Your task to perform on an android device: read, delete, or share a saved page in the chrome app Image 0: 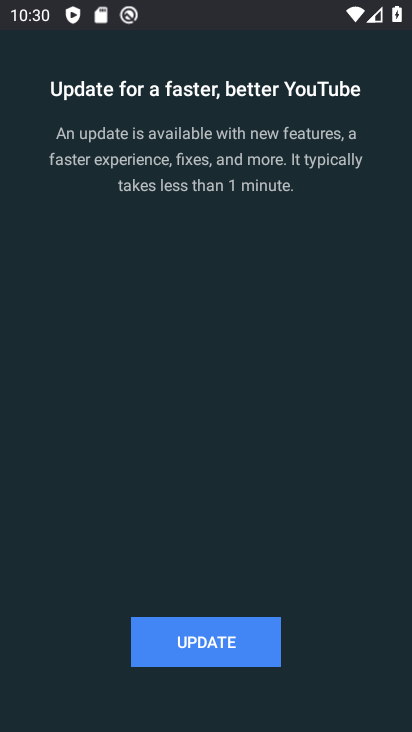
Step 0: press home button
Your task to perform on an android device: read, delete, or share a saved page in the chrome app Image 1: 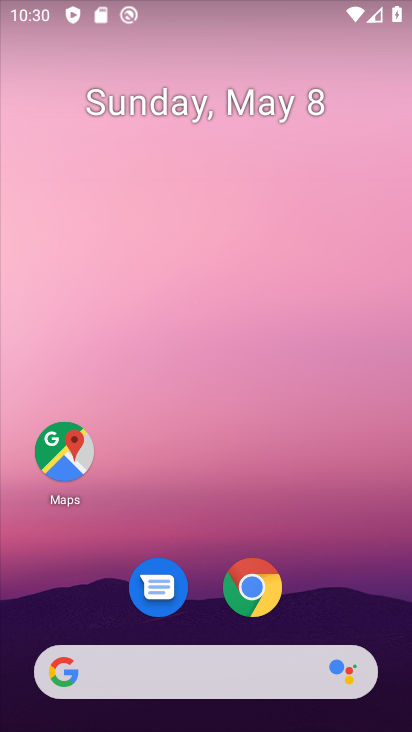
Step 1: drag from (339, 597) to (172, 52)
Your task to perform on an android device: read, delete, or share a saved page in the chrome app Image 2: 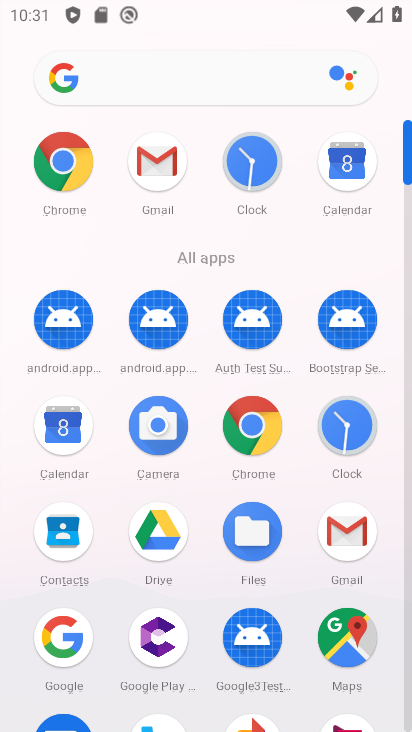
Step 2: click (57, 157)
Your task to perform on an android device: read, delete, or share a saved page in the chrome app Image 3: 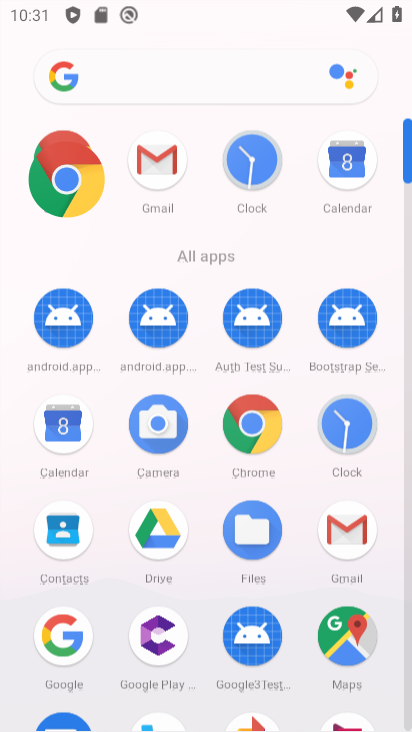
Step 3: click (57, 157)
Your task to perform on an android device: read, delete, or share a saved page in the chrome app Image 4: 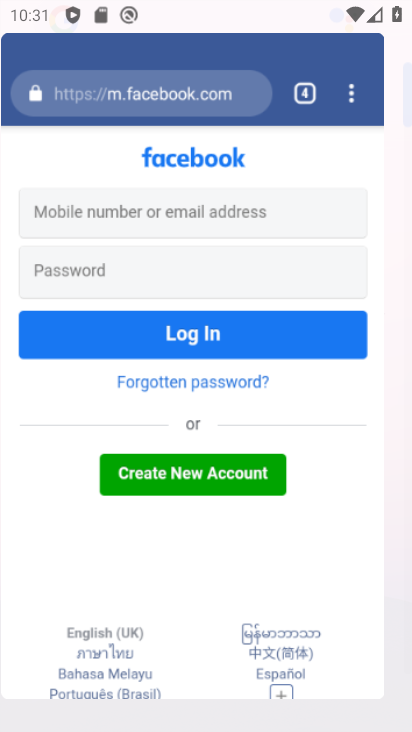
Step 4: click (57, 157)
Your task to perform on an android device: read, delete, or share a saved page in the chrome app Image 5: 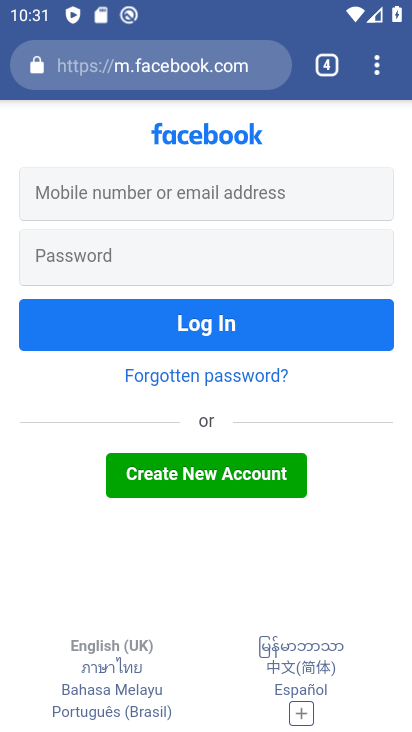
Step 5: press home button
Your task to perform on an android device: read, delete, or share a saved page in the chrome app Image 6: 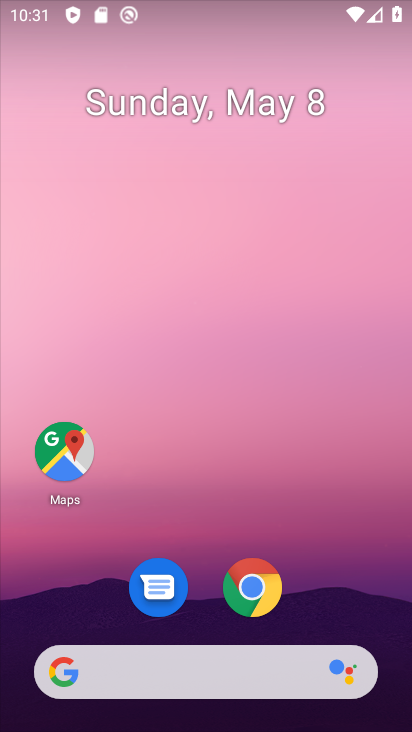
Step 6: drag from (357, 591) to (208, 118)
Your task to perform on an android device: read, delete, or share a saved page in the chrome app Image 7: 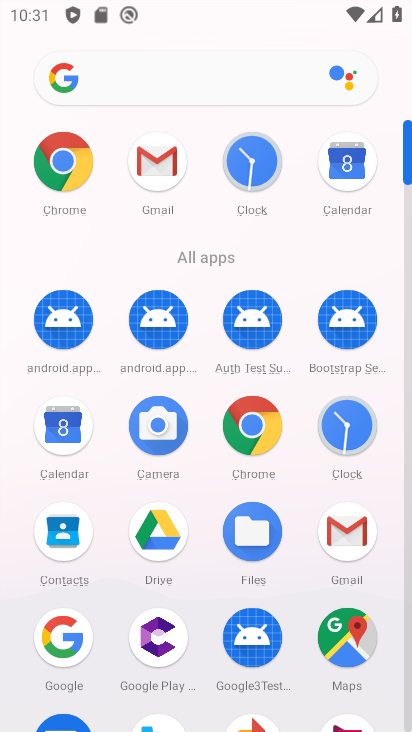
Step 7: click (259, 427)
Your task to perform on an android device: read, delete, or share a saved page in the chrome app Image 8: 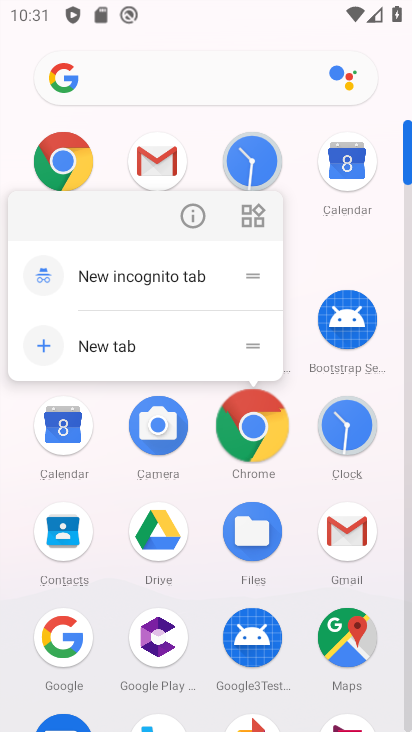
Step 8: click (264, 420)
Your task to perform on an android device: read, delete, or share a saved page in the chrome app Image 9: 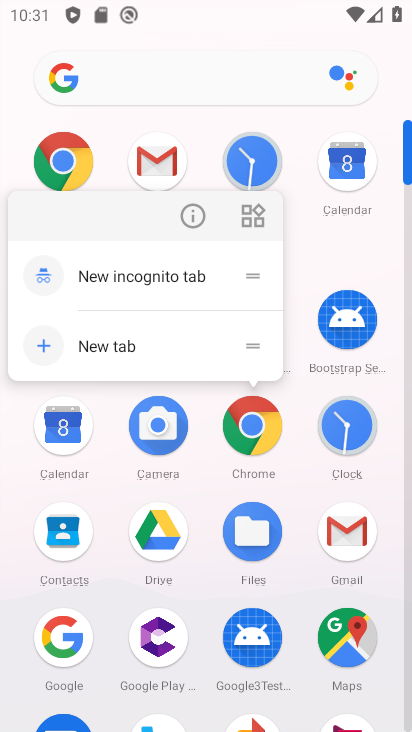
Step 9: click (264, 420)
Your task to perform on an android device: read, delete, or share a saved page in the chrome app Image 10: 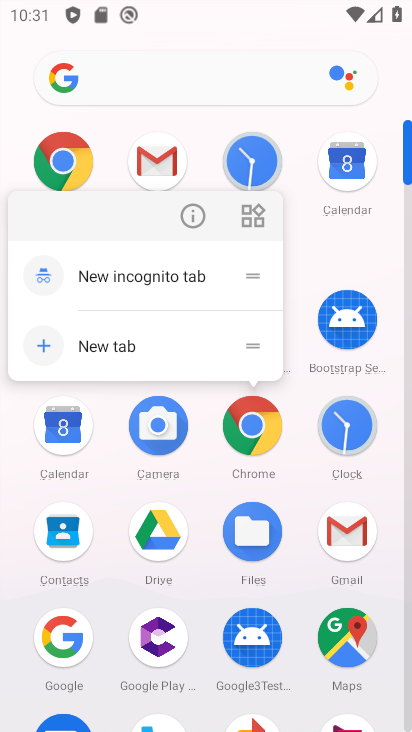
Step 10: click (264, 420)
Your task to perform on an android device: read, delete, or share a saved page in the chrome app Image 11: 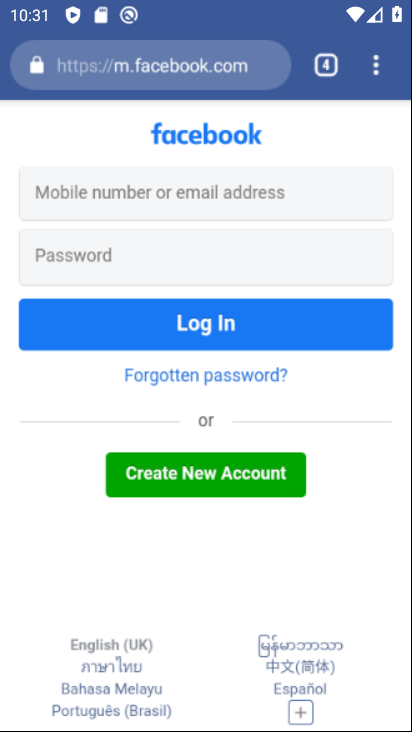
Step 11: click (264, 420)
Your task to perform on an android device: read, delete, or share a saved page in the chrome app Image 12: 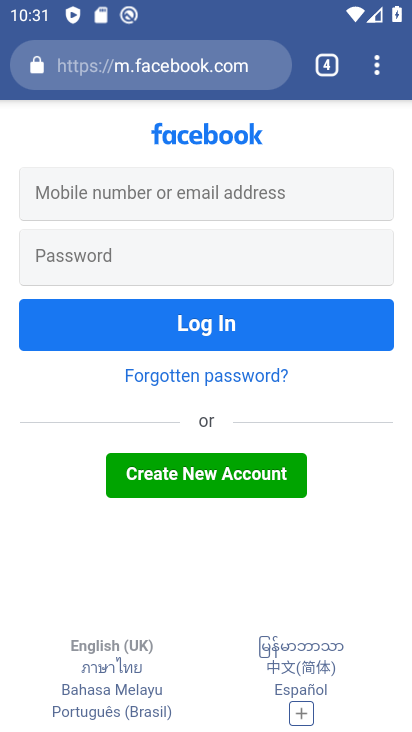
Step 12: drag from (370, 61) to (154, 629)
Your task to perform on an android device: read, delete, or share a saved page in the chrome app Image 13: 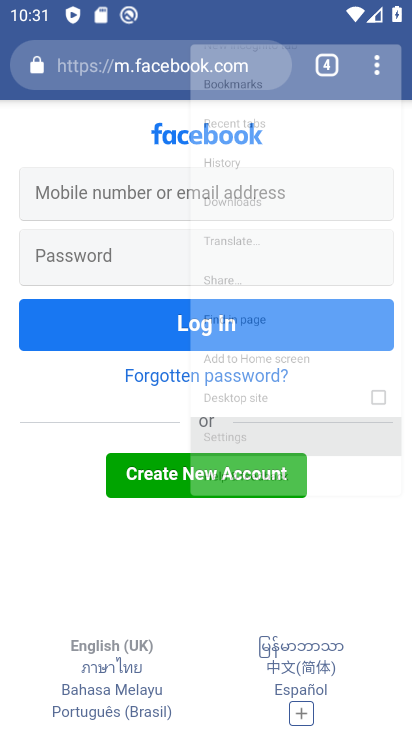
Step 13: click (150, 637)
Your task to perform on an android device: read, delete, or share a saved page in the chrome app Image 14: 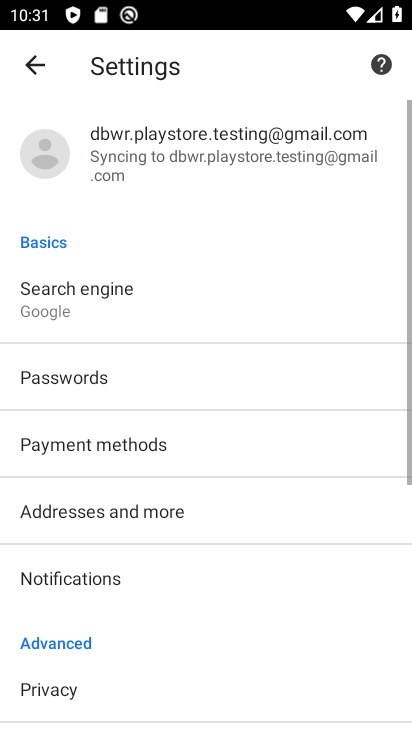
Step 14: click (119, 599)
Your task to perform on an android device: read, delete, or share a saved page in the chrome app Image 15: 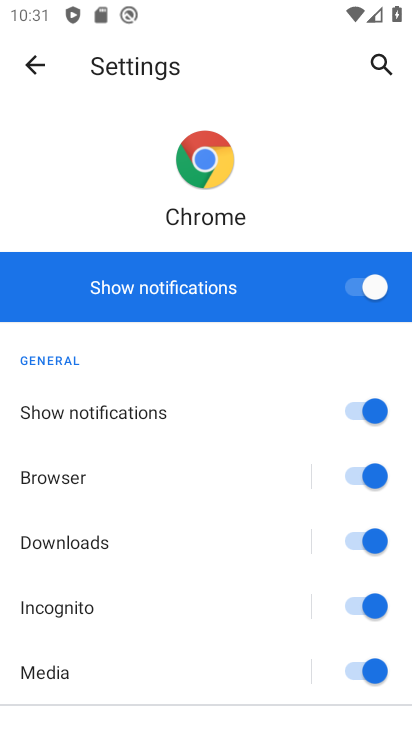
Step 15: click (33, 60)
Your task to perform on an android device: read, delete, or share a saved page in the chrome app Image 16: 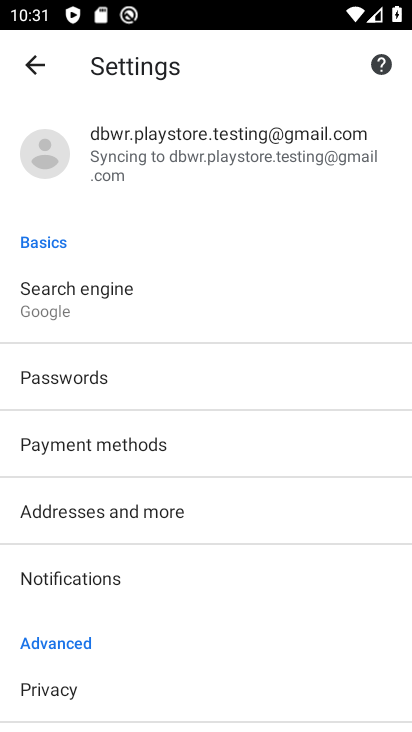
Step 16: drag from (146, 577) to (113, 99)
Your task to perform on an android device: read, delete, or share a saved page in the chrome app Image 17: 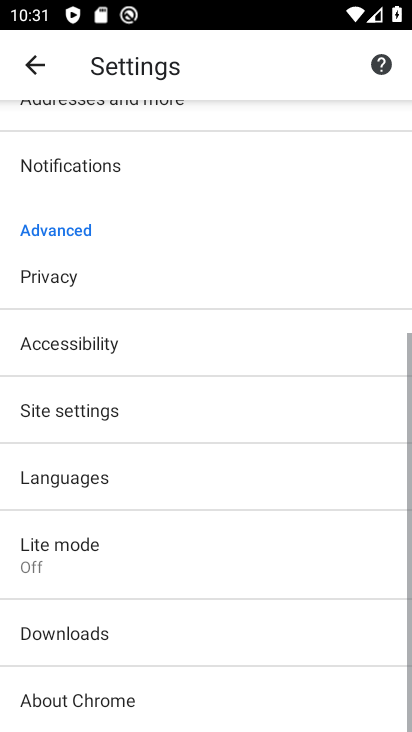
Step 17: drag from (192, 442) to (146, 3)
Your task to perform on an android device: read, delete, or share a saved page in the chrome app Image 18: 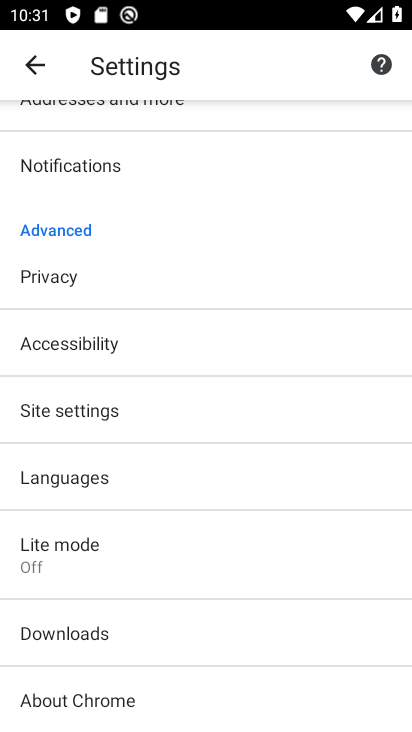
Step 18: drag from (111, 389) to (213, 724)
Your task to perform on an android device: read, delete, or share a saved page in the chrome app Image 19: 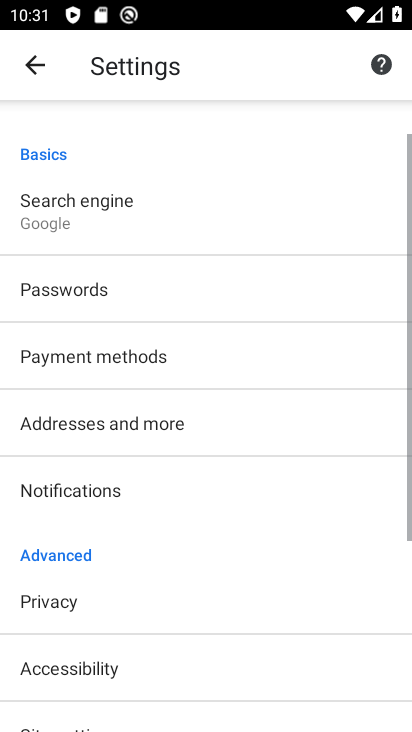
Step 19: drag from (127, 126) to (239, 550)
Your task to perform on an android device: read, delete, or share a saved page in the chrome app Image 20: 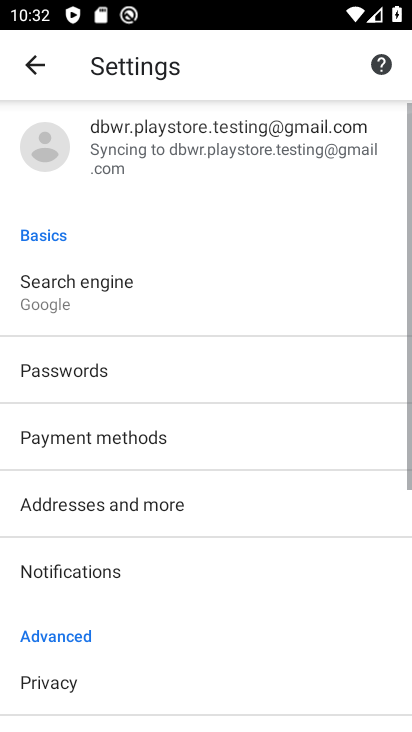
Step 20: drag from (195, 260) to (260, 617)
Your task to perform on an android device: read, delete, or share a saved page in the chrome app Image 21: 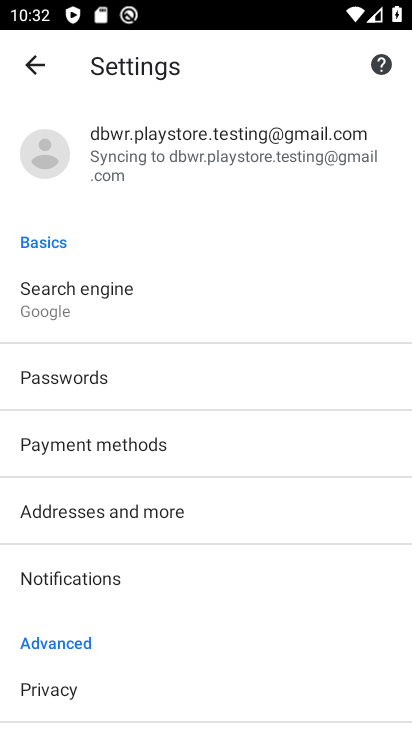
Step 21: click (29, 74)
Your task to perform on an android device: read, delete, or share a saved page in the chrome app Image 22: 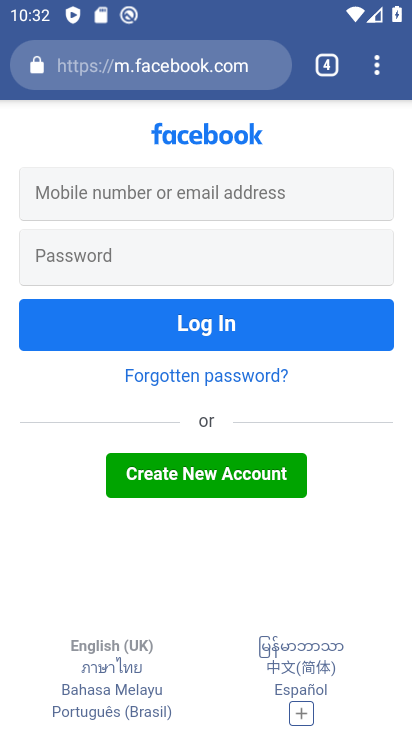
Step 22: drag from (377, 72) to (137, 429)
Your task to perform on an android device: read, delete, or share a saved page in the chrome app Image 23: 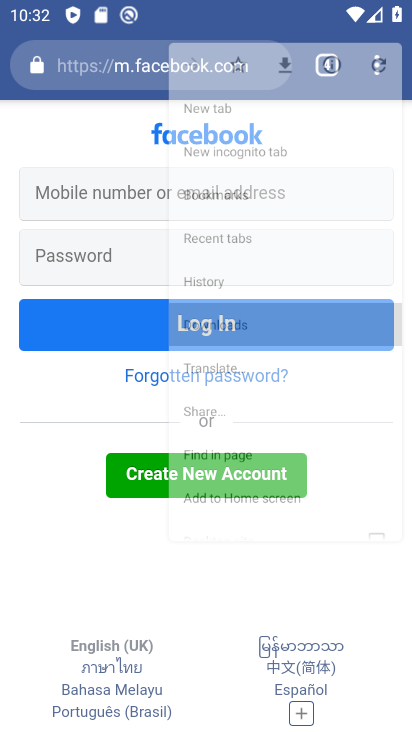
Step 23: click (130, 440)
Your task to perform on an android device: read, delete, or share a saved page in the chrome app Image 24: 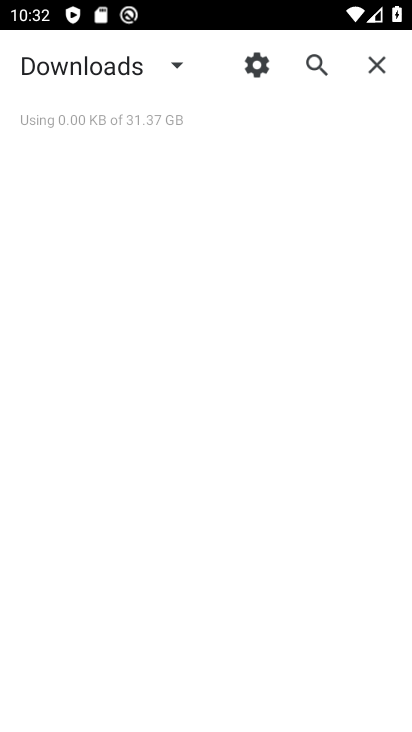
Step 24: click (177, 66)
Your task to perform on an android device: read, delete, or share a saved page in the chrome app Image 25: 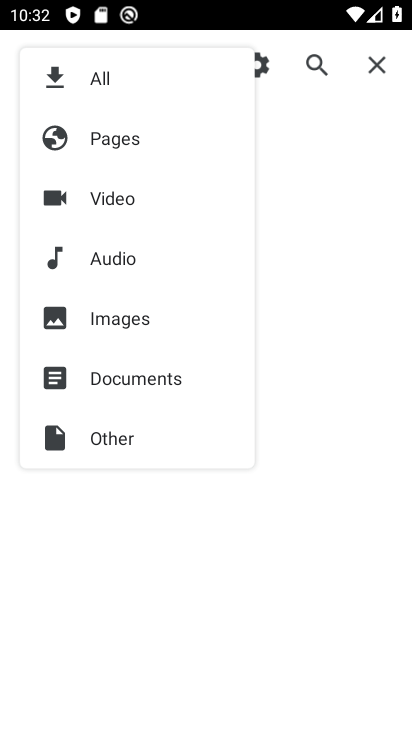
Step 25: click (107, 138)
Your task to perform on an android device: read, delete, or share a saved page in the chrome app Image 26: 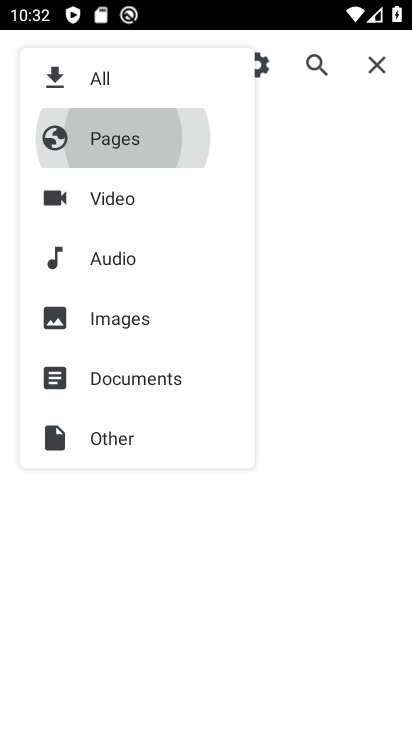
Step 26: click (107, 138)
Your task to perform on an android device: read, delete, or share a saved page in the chrome app Image 27: 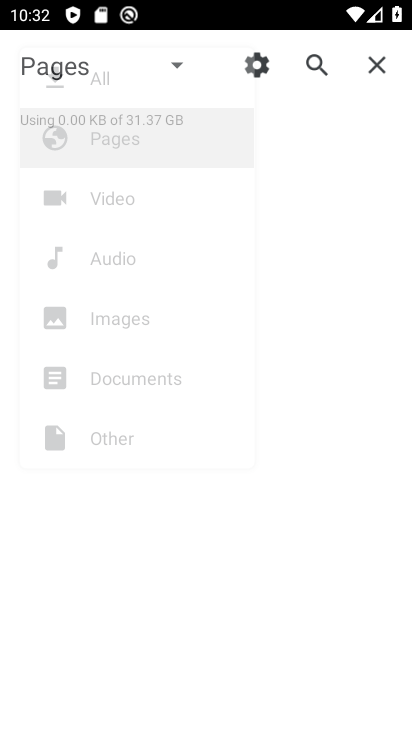
Step 27: click (107, 138)
Your task to perform on an android device: read, delete, or share a saved page in the chrome app Image 28: 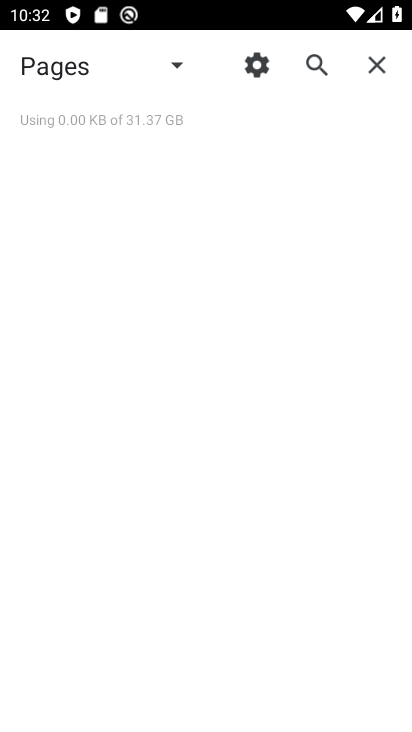
Step 28: click (107, 138)
Your task to perform on an android device: read, delete, or share a saved page in the chrome app Image 29: 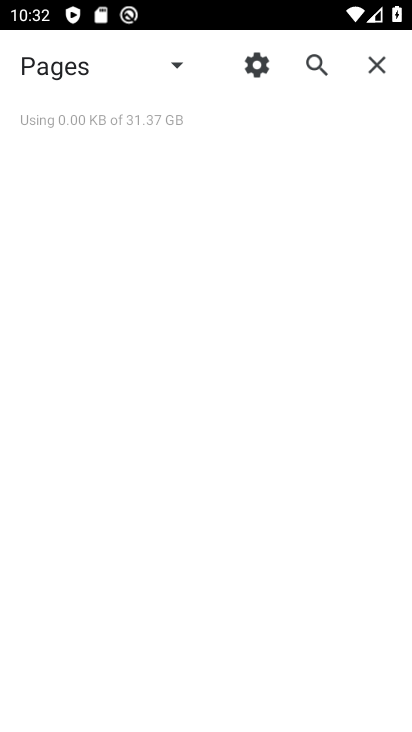
Step 29: task complete